Your task to perform on an android device: move a message to another label in the gmail app Image 0: 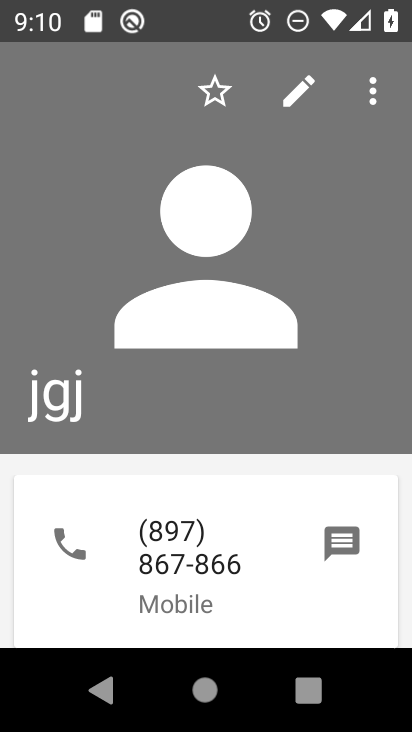
Step 0: press home button
Your task to perform on an android device: move a message to another label in the gmail app Image 1: 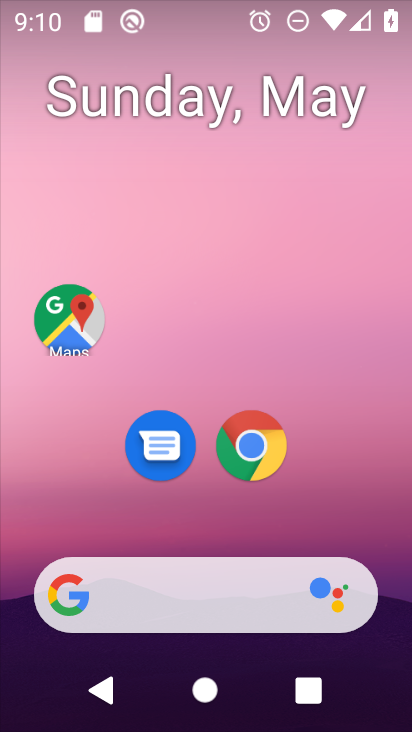
Step 1: drag from (208, 495) to (198, 128)
Your task to perform on an android device: move a message to another label in the gmail app Image 2: 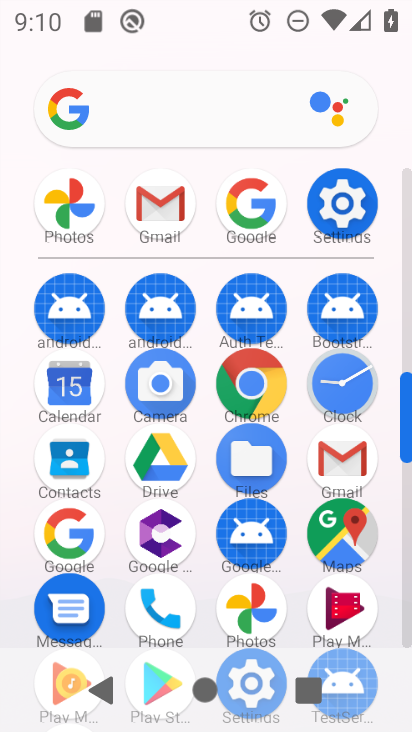
Step 2: click (339, 453)
Your task to perform on an android device: move a message to another label in the gmail app Image 3: 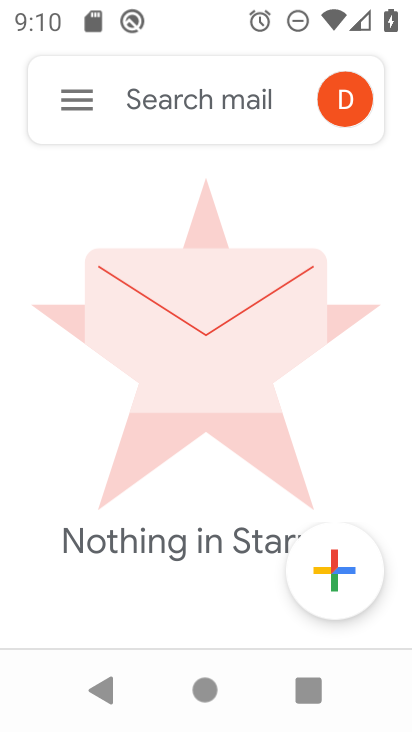
Step 3: click (60, 103)
Your task to perform on an android device: move a message to another label in the gmail app Image 4: 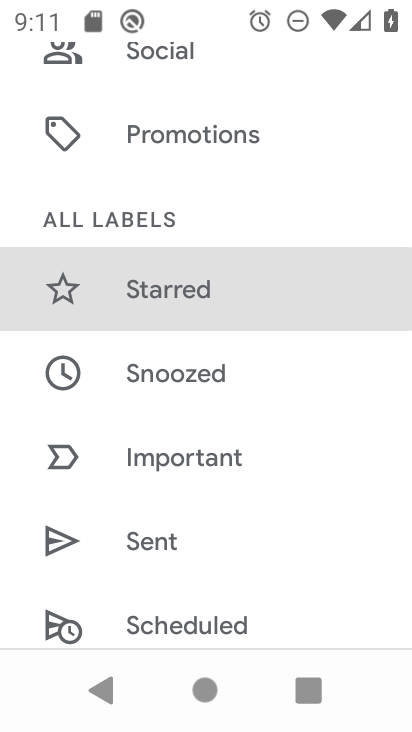
Step 4: drag from (204, 509) to (228, 266)
Your task to perform on an android device: move a message to another label in the gmail app Image 5: 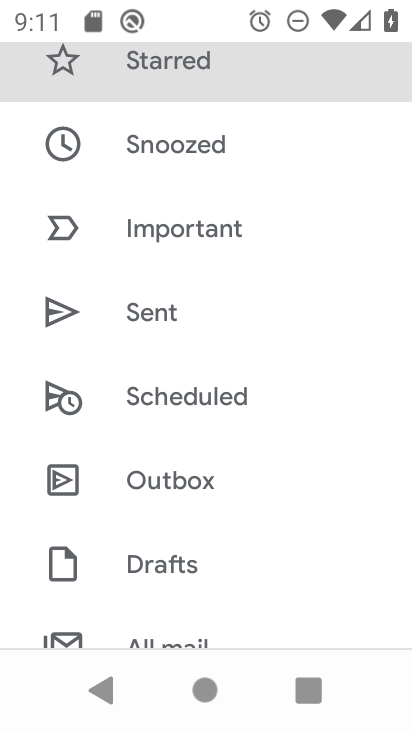
Step 5: drag from (193, 495) to (196, 329)
Your task to perform on an android device: move a message to another label in the gmail app Image 6: 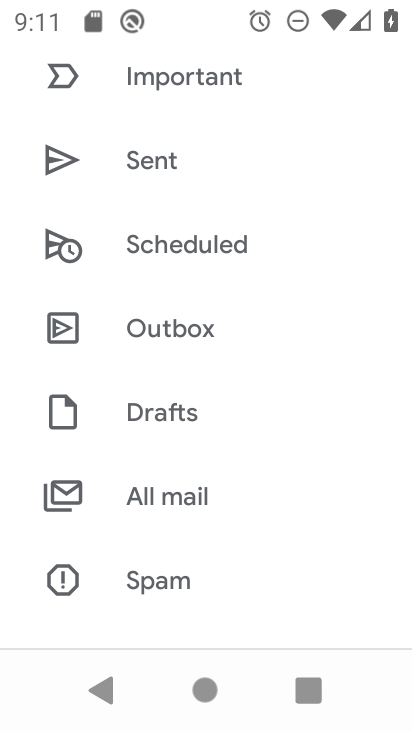
Step 6: click (185, 499)
Your task to perform on an android device: move a message to another label in the gmail app Image 7: 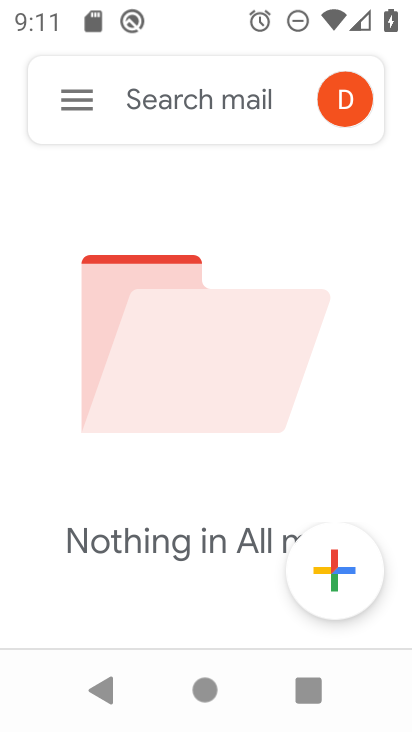
Step 7: task complete